Your task to perform on an android device: open app "McDonald's" (install if not already installed), go to login, and select forgot password Image 0: 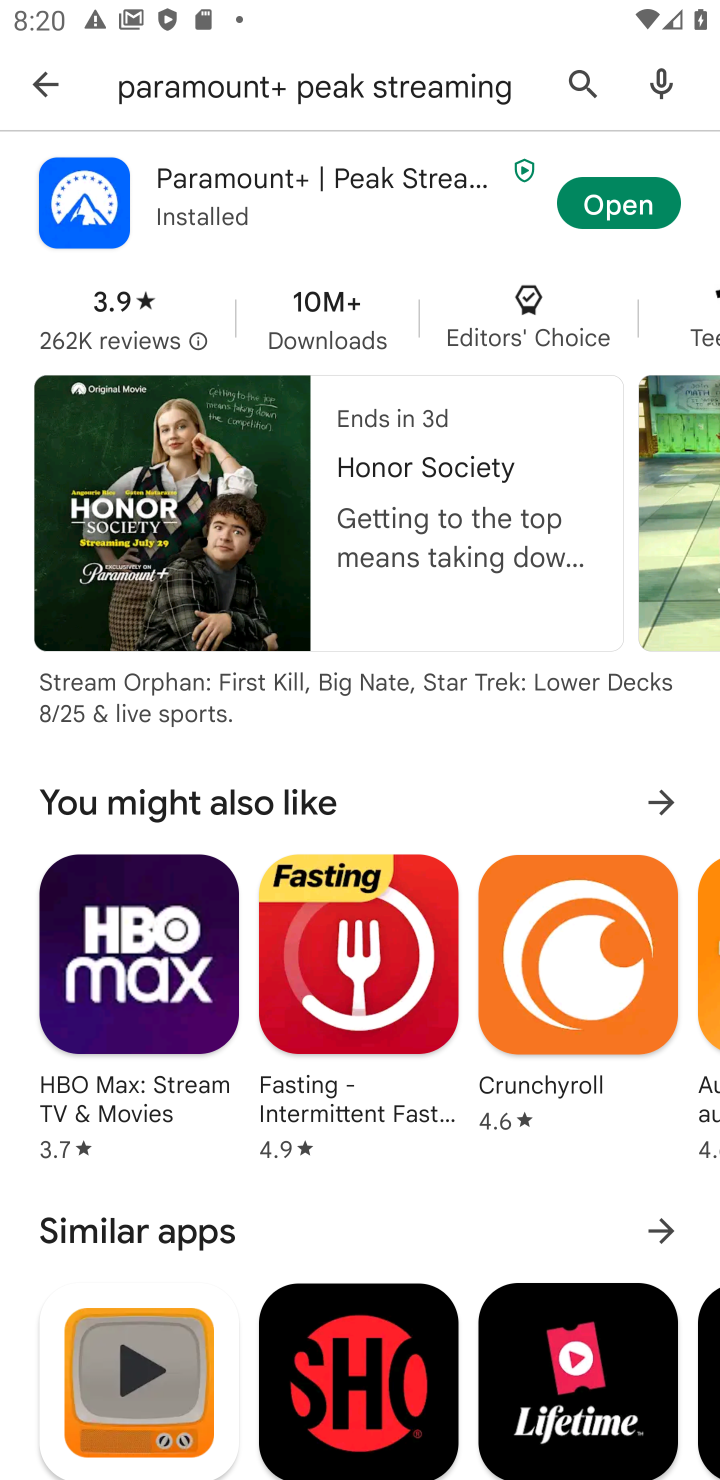
Step 0: click (577, 79)
Your task to perform on an android device: open app "McDonald's" (install if not already installed), go to login, and select forgot password Image 1: 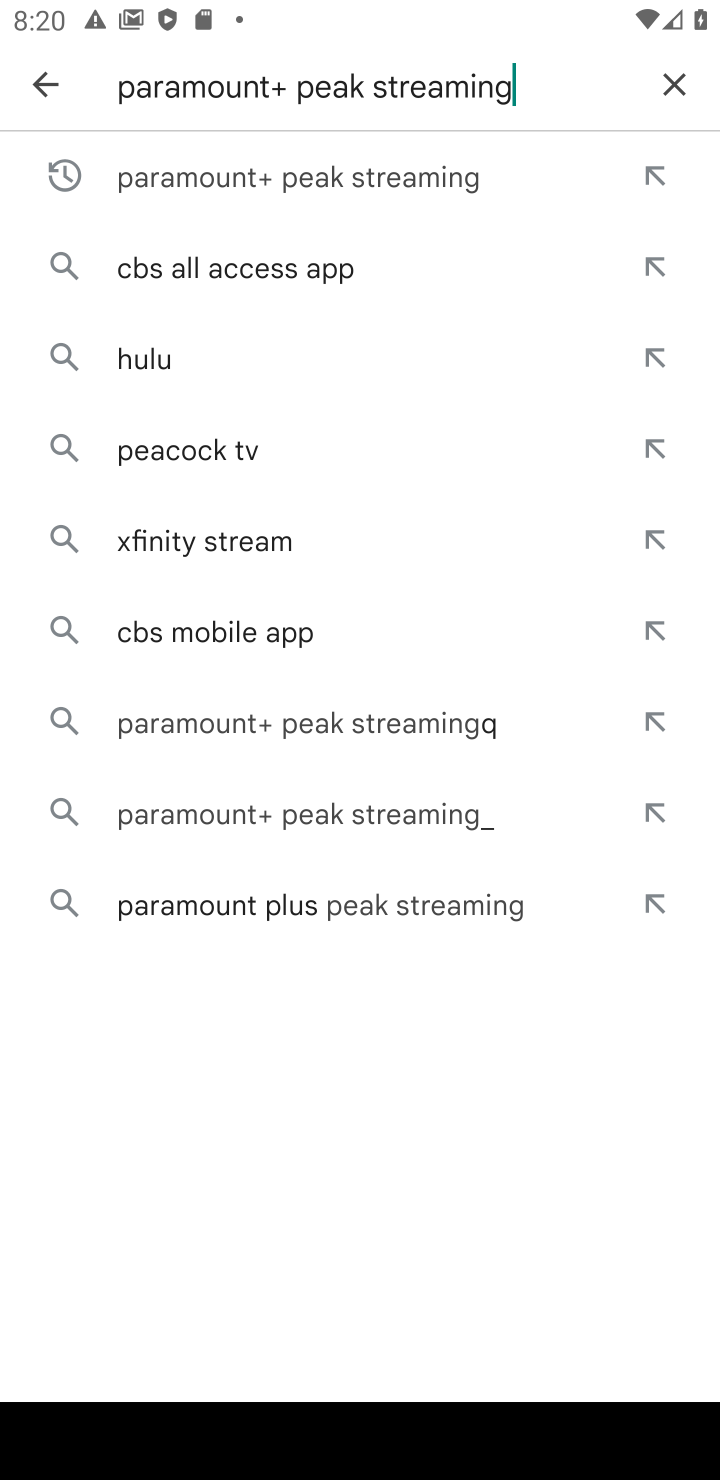
Step 1: click (668, 70)
Your task to perform on an android device: open app "McDonald's" (install if not already installed), go to login, and select forgot password Image 2: 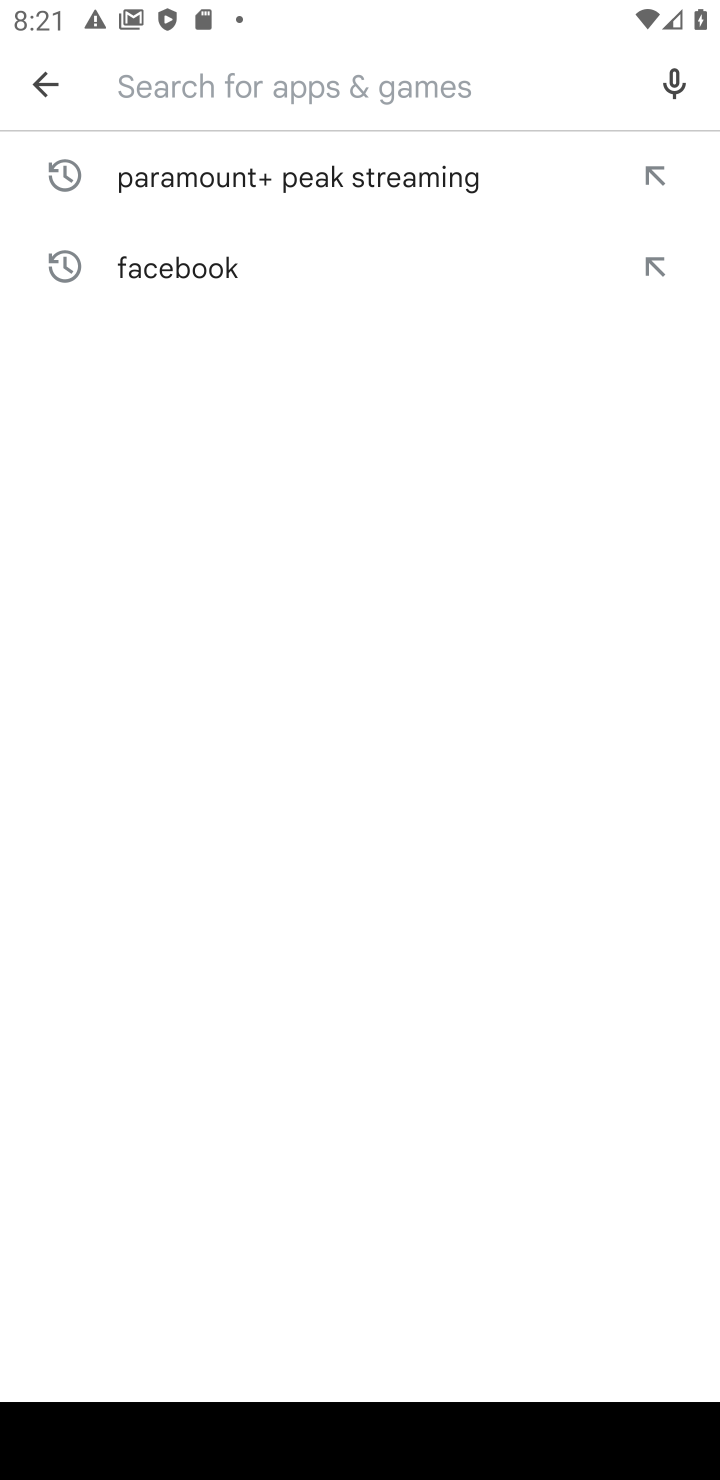
Step 2: type "McDonald's"
Your task to perform on an android device: open app "McDonald's" (install if not already installed), go to login, and select forgot password Image 3: 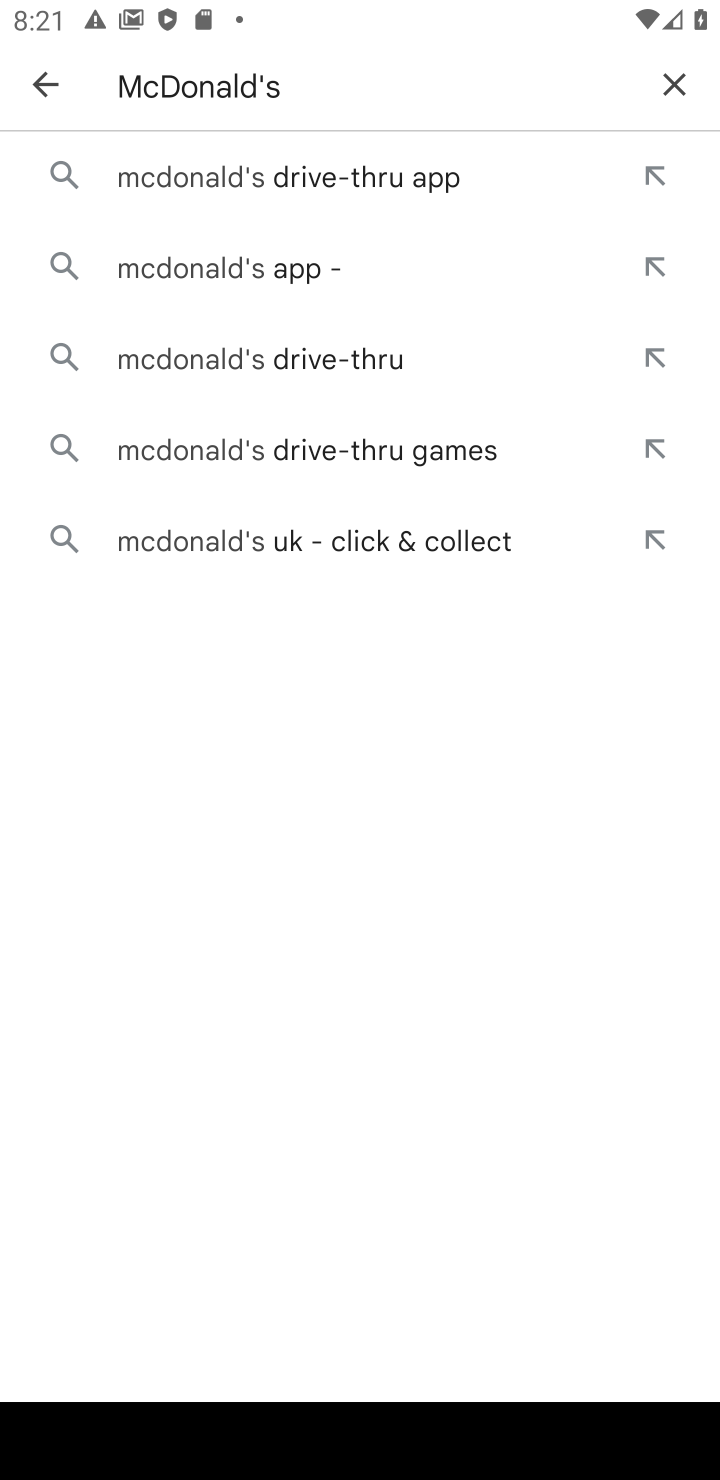
Step 3: click (211, 266)
Your task to perform on an android device: open app "McDonald's" (install if not already installed), go to login, and select forgot password Image 4: 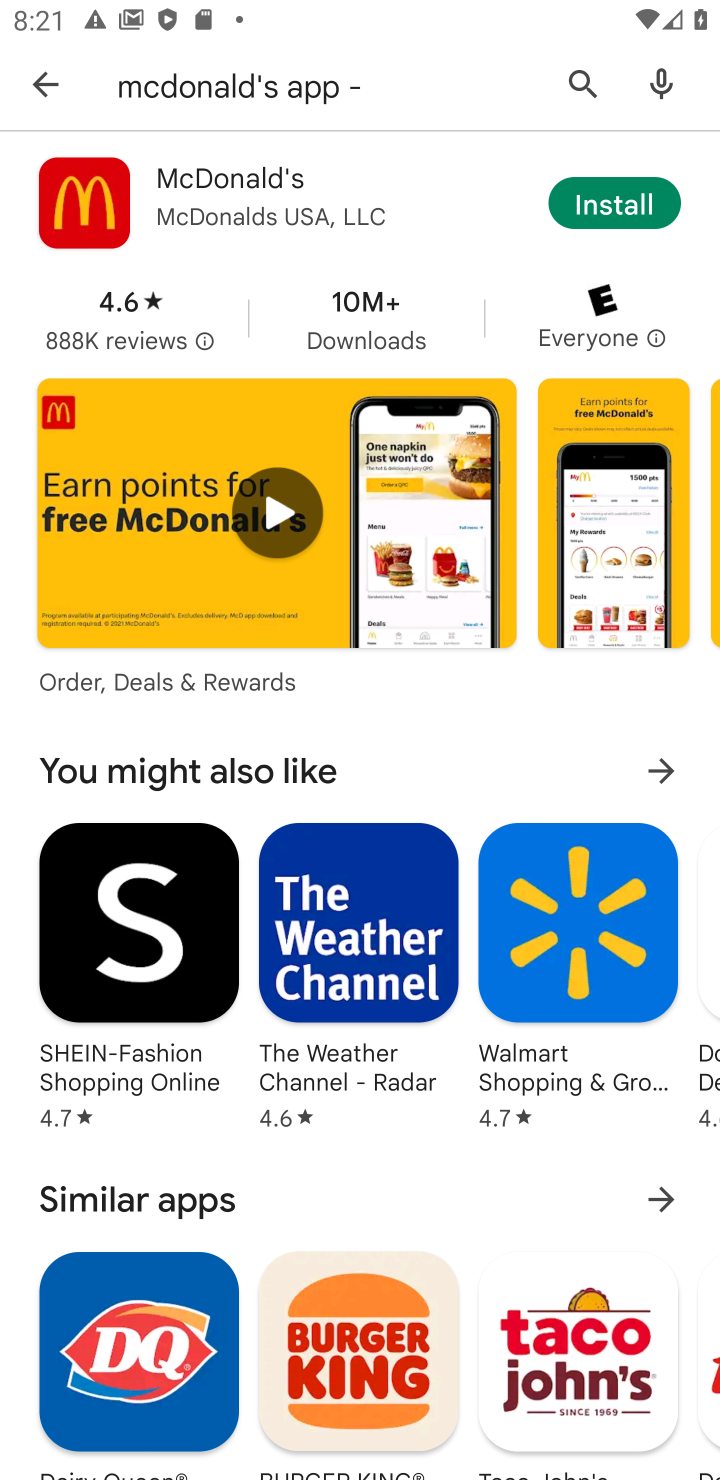
Step 4: click (581, 206)
Your task to perform on an android device: open app "McDonald's" (install if not already installed), go to login, and select forgot password Image 5: 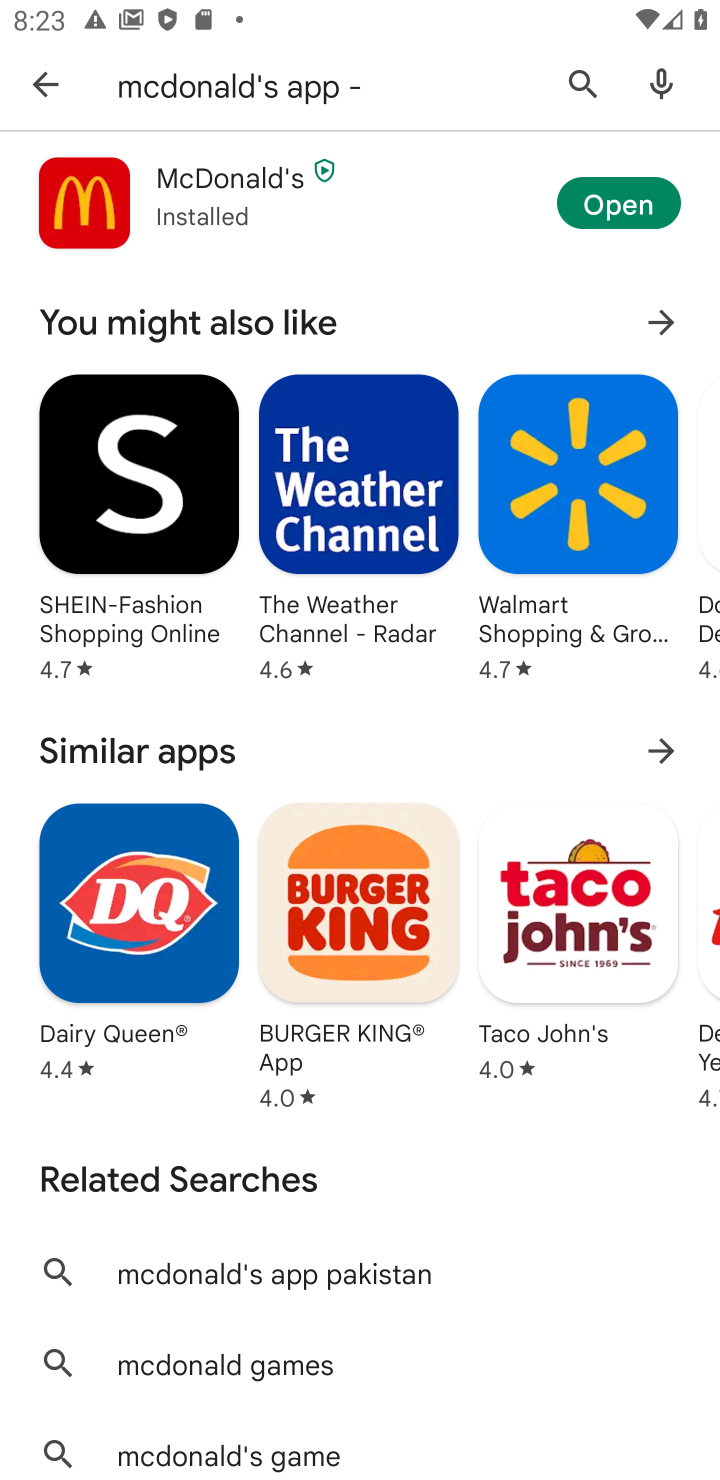
Step 5: click (601, 210)
Your task to perform on an android device: open app "McDonald's" (install if not already installed), go to login, and select forgot password Image 6: 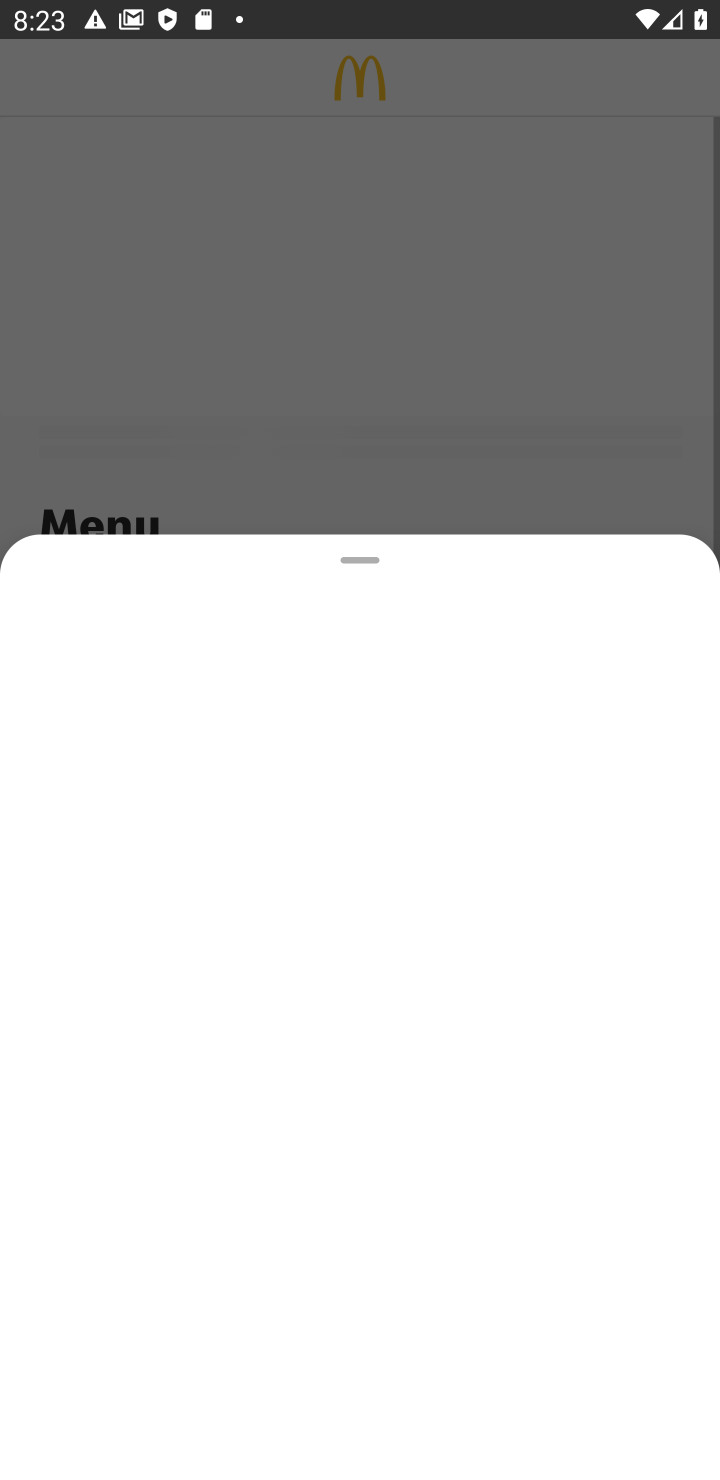
Step 6: task complete